Your task to perform on an android device: Is it going to rain tomorrow? Image 0: 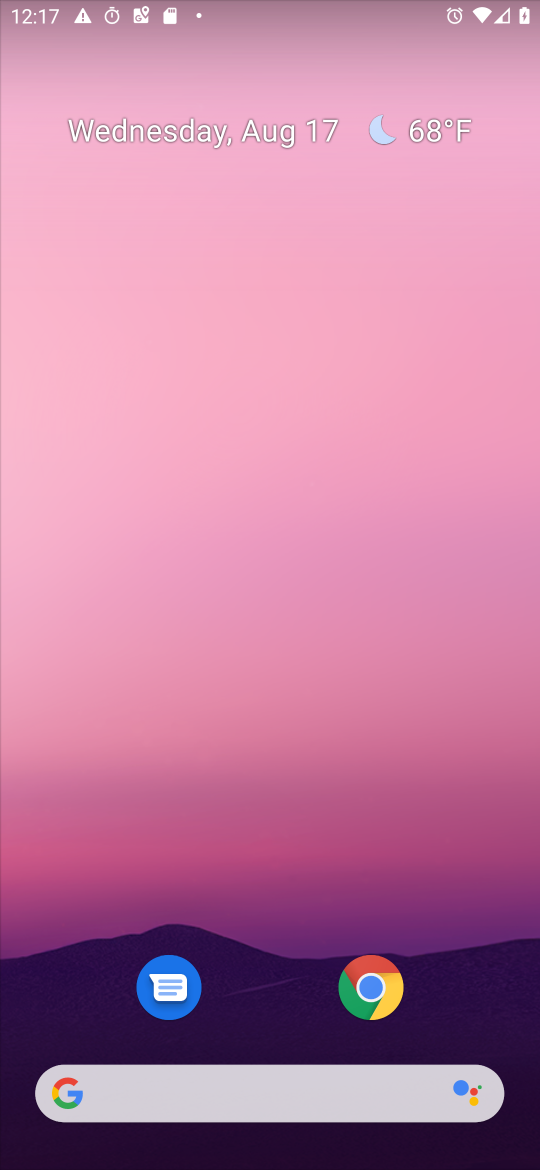
Step 0: drag from (9, 1124) to (144, 244)
Your task to perform on an android device: Is it going to rain tomorrow? Image 1: 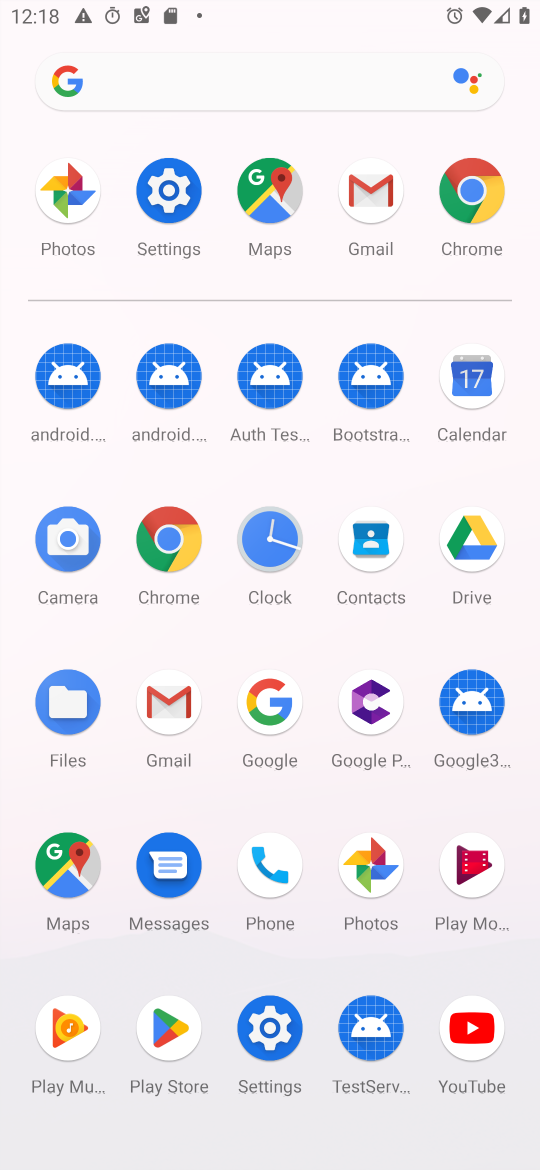
Step 1: click (131, 71)
Your task to perform on an android device: Is it going to rain tomorrow? Image 2: 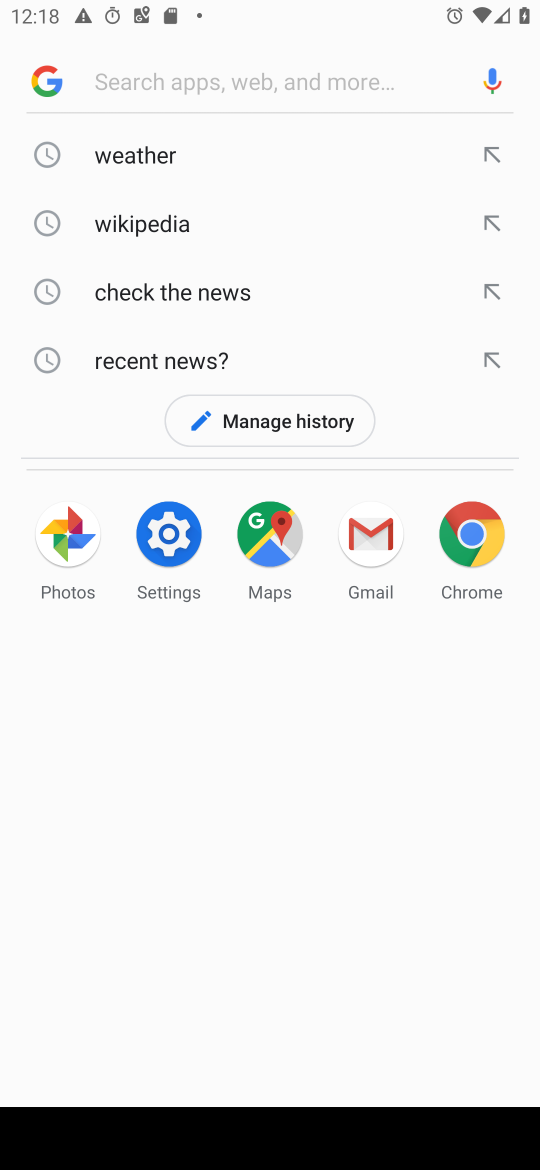
Step 2: type "Is it going to rain tomorrow?"
Your task to perform on an android device: Is it going to rain tomorrow? Image 3: 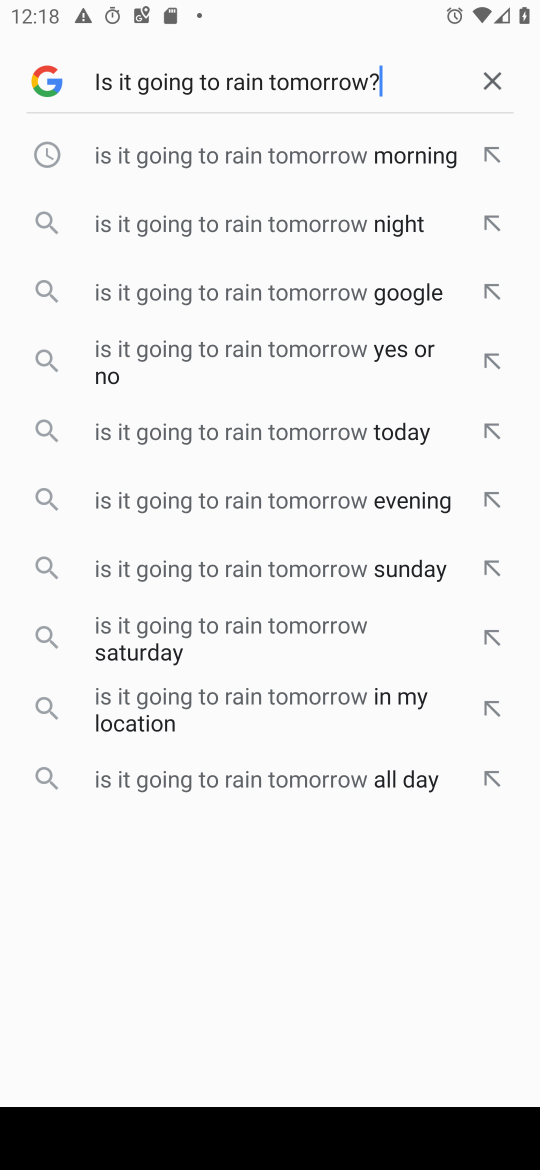
Step 3: type ""
Your task to perform on an android device: Is it going to rain tomorrow? Image 4: 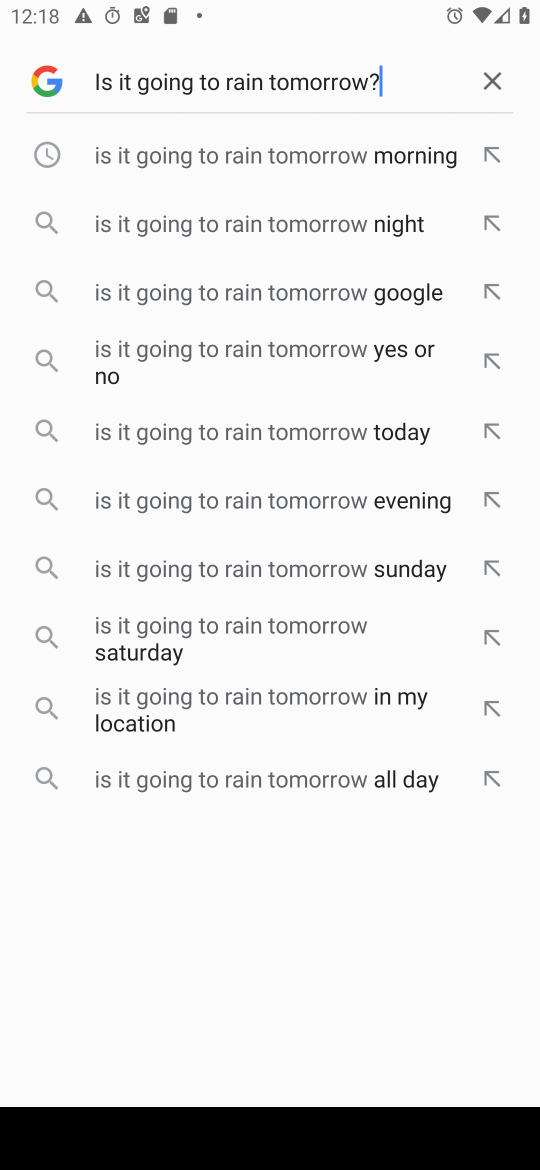
Step 4: type ""
Your task to perform on an android device: Is it going to rain tomorrow? Image 5: 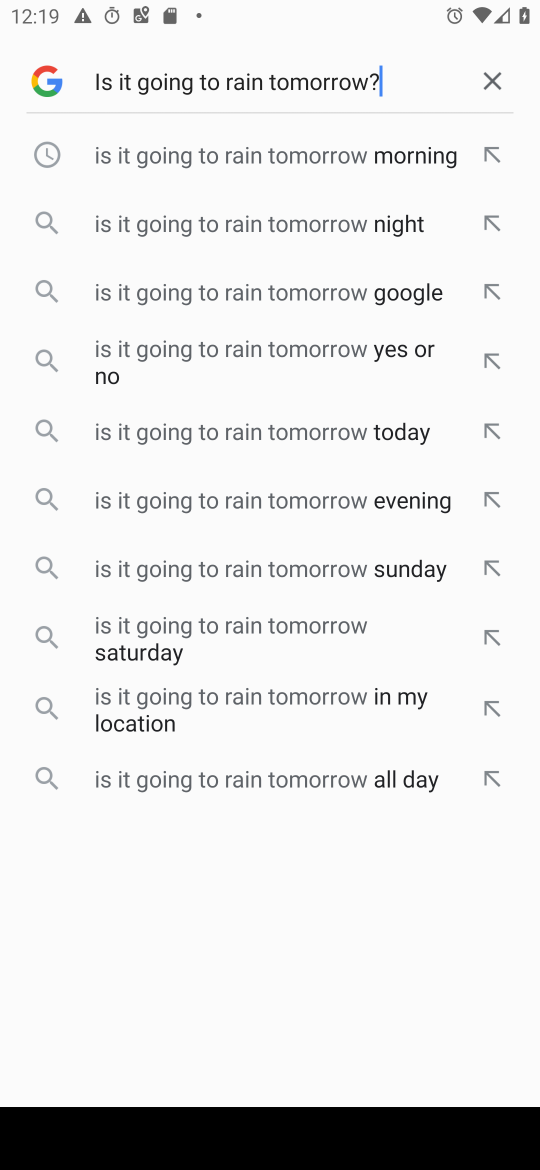
Step 5: task complete